Your task to perform on an android device: Show me popular games on the Play Store Image 0: 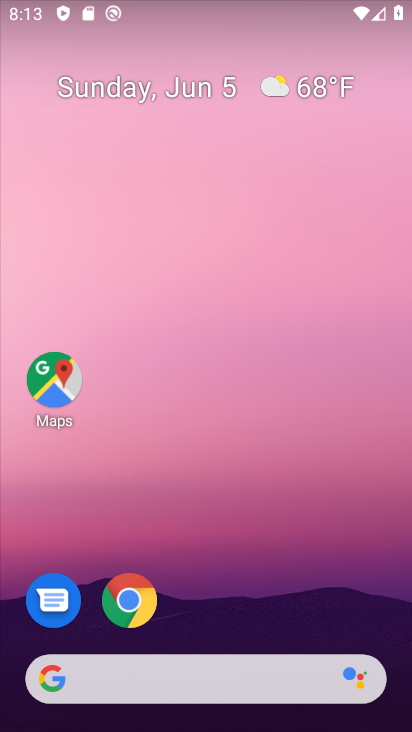
Step 0: drag from (240, 627) to (364, 14)
Your task to perform on an android device: Show me popular games on the Play Store Image 1: 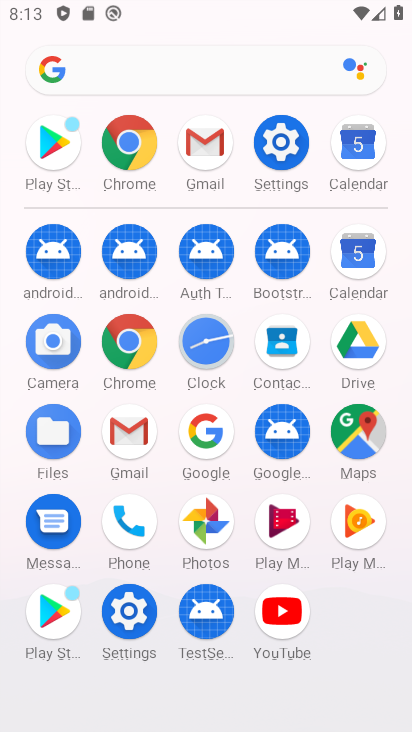
Step 1: click (45, 615)
Your task to perform on an android device: Show me popular games on the Play Store Image 2: 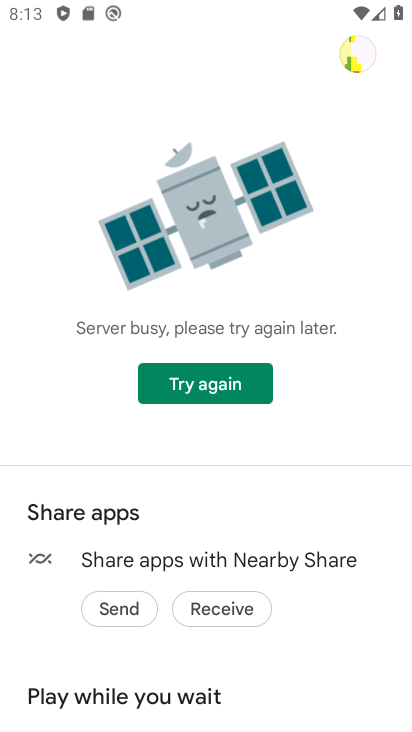
Step 2: click (224, 384)
Your task to perform on an android device: Show me popular games on the Play Store Image 3: 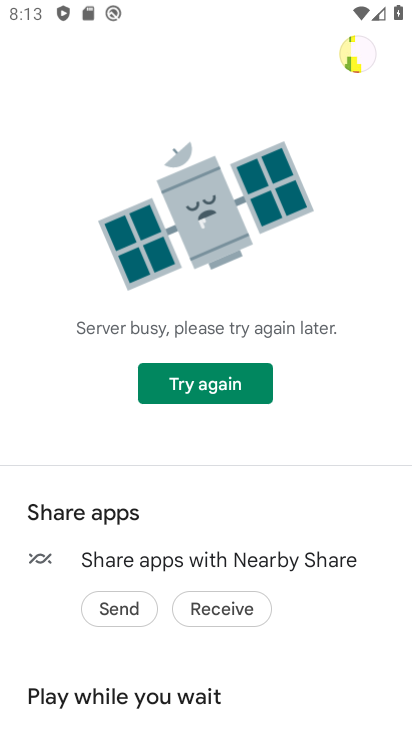
Step 3: task complete